Your task to perform on an android device: Search for vegetarian restaurants on Maps Image 0: 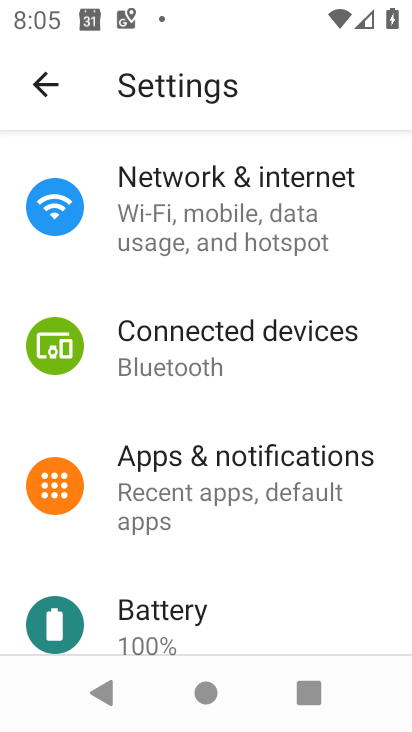
Step 0: press home button
Your task to perform on an android device: Search for vegetarian restaurants on Maps Image 1: 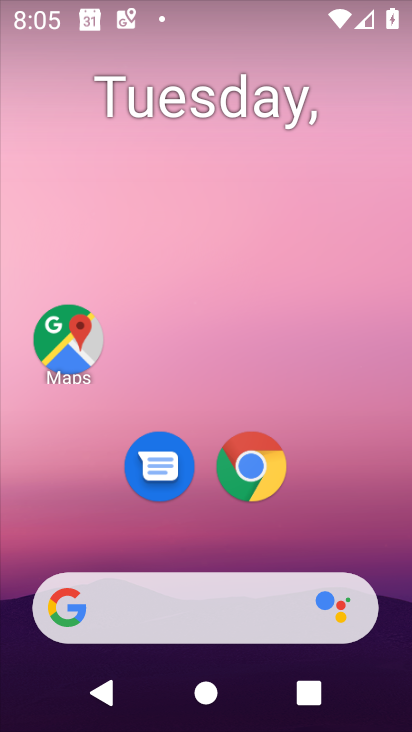
Step 1: click (60, 345)
Your task to perform on an android device: Search for vegetarian restaurants on Maps Image 2: 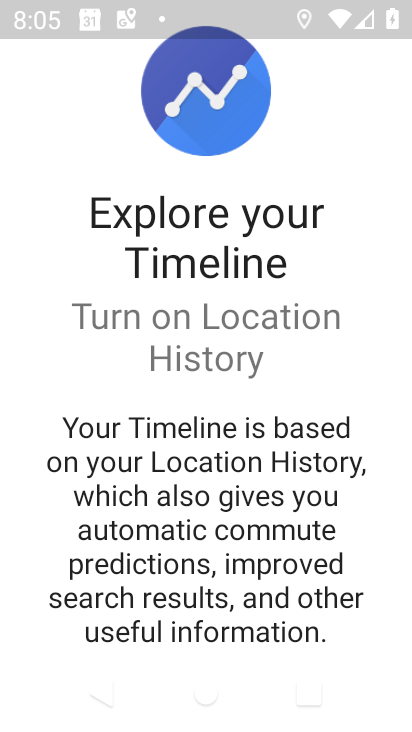
Step 2: drag from (292, 640) to (254, 147)
Your task to perform on an android device: Search for vegetarian restaurants on Maps Image 3: 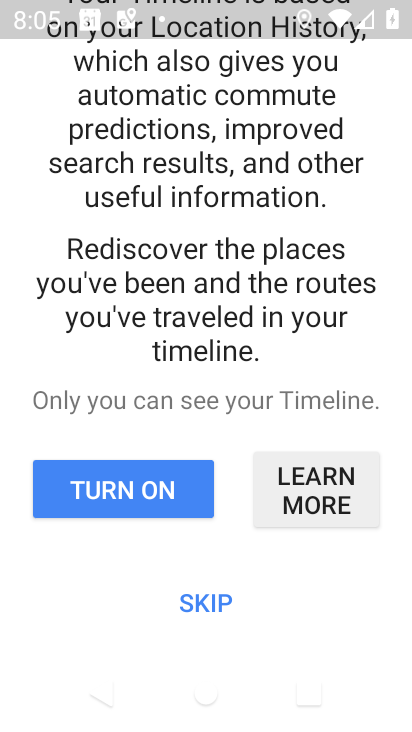
Step 3: click (204, 602)
Your task to perform on an android device: Search for vegetarian restaurants on Maps Image 4: 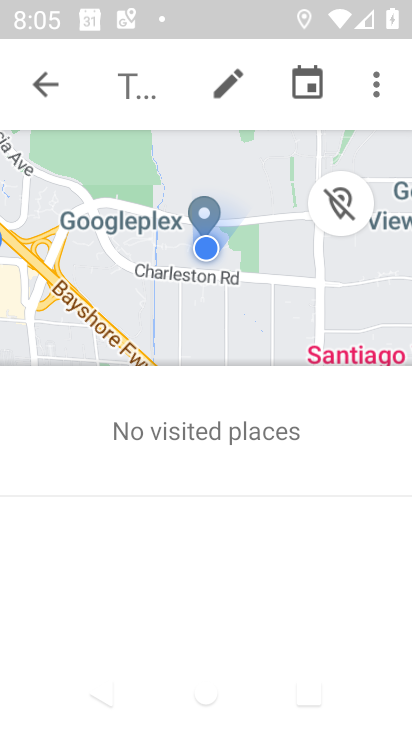
Step 4: click (49, 100)
Your task to perform on an android device: Search for vegetarian restaurants on Maps Image 5: 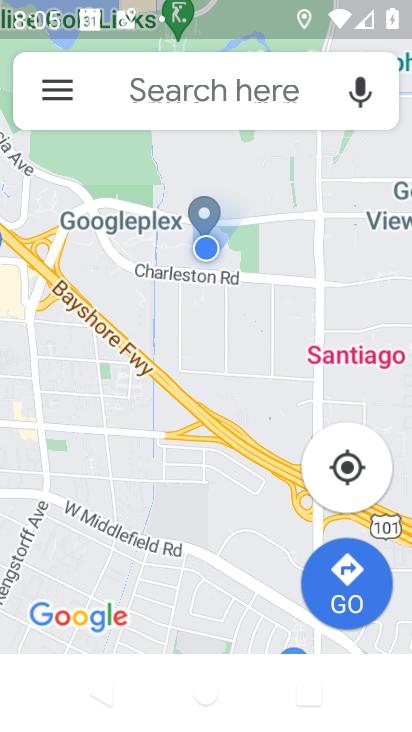
Step 5: click (49, 100)
Your task to perform on an android device: Search for vegetarian restaurants on Maps Image 6: 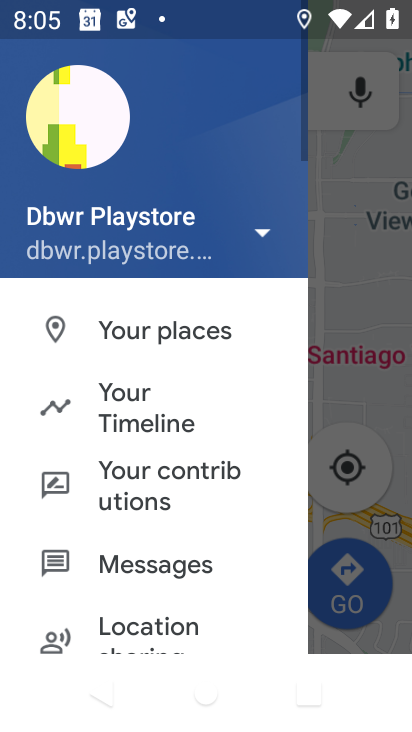
Step 6: click (315, 93)
Your task to perform on an android device: Search for vegetarian restaurants on Maps Image 7: 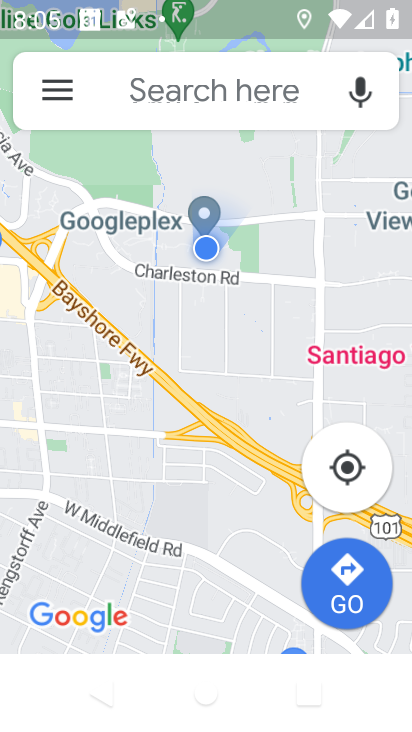
Step 7: click (315, 93)
Your task to perform on an android device: Search for vegetarian restaurants on Maps Image 8: 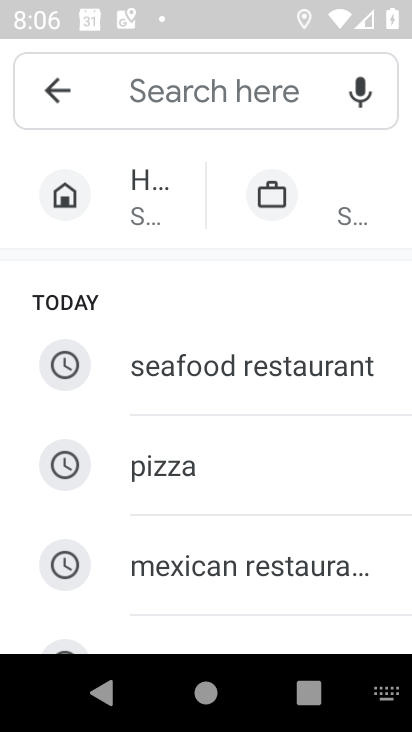
Step 8: drag from (192, 501) to (206, 340)
Your task to perform on an android device: Search for vegetarian restaurants on Maps Image 9: 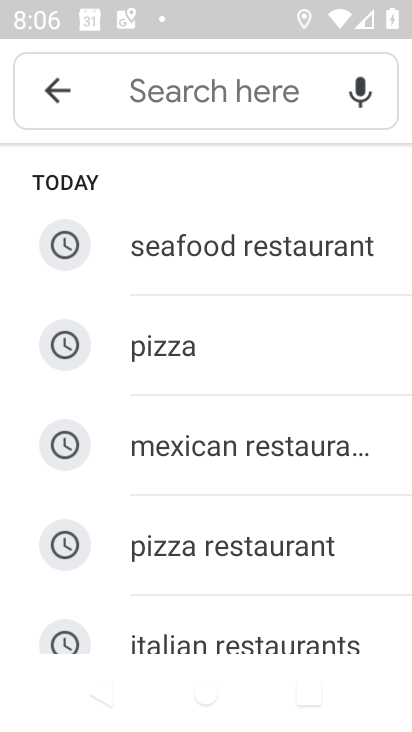
Step 9: drag from (201, 609) to (245, 285)
Your task to perform on an android device: Search for vegetarian restaurants on Maps Image 10: 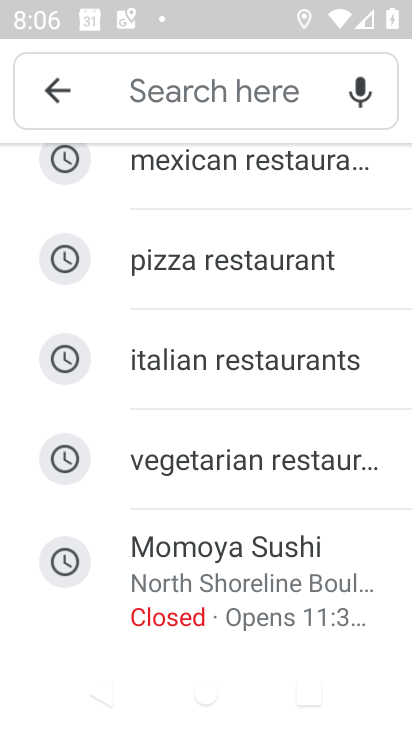
Step 10: click (229, 469)
Your task to perform on an android device: Search for vegetarian restaurants on Maps Image 11: 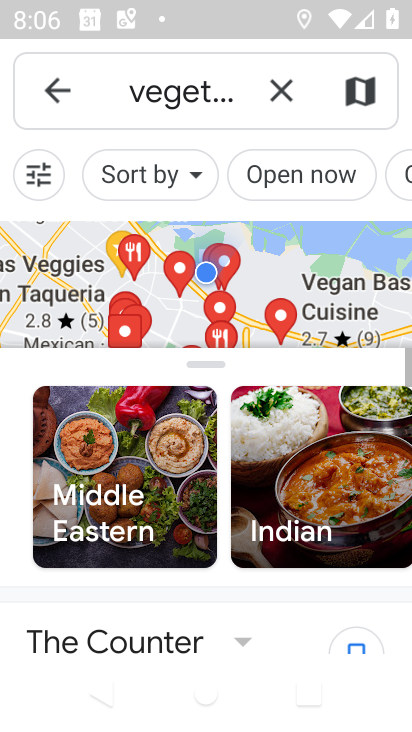
Step 11: task complete